Your task to perform on an android device: set default search engine in the chrome app Image 0: 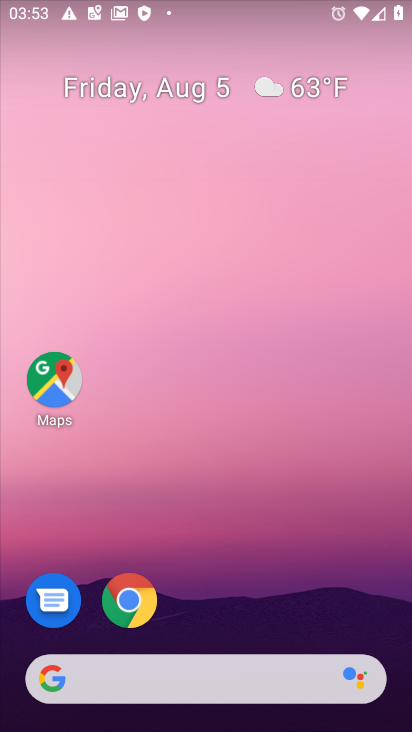
Step 0: click (129, 600)
Your task to perform on an android device: set default search engine in the chrome app Image 1: 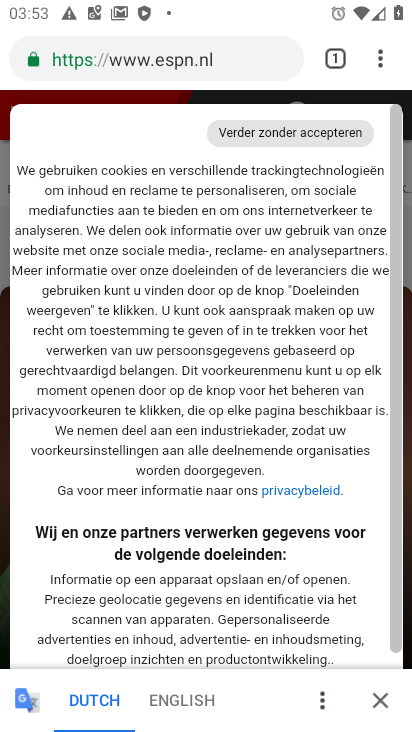
Step 1: click (380, 60)
Your task to perform on an android device: set default search engine in the chrome app Image 2: 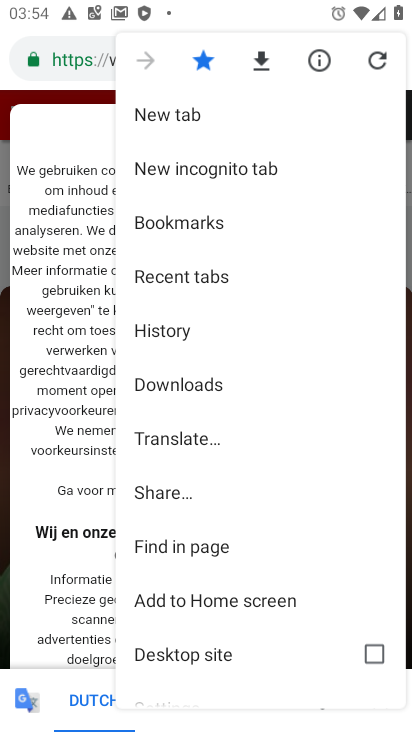
Step 2: drag from (180, 538) to (229, 449)
Your task to perform on an android device: set default search engine in the chrome app Image 3: 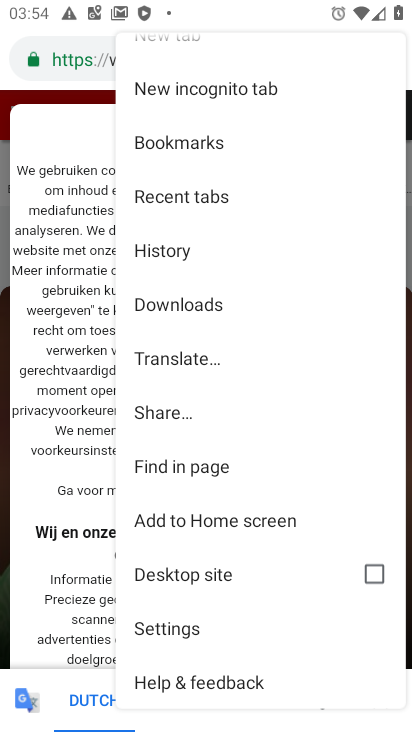
Step 3: click (187, 631)
Your task to perform on an android device: set default search engine in the chrome app Image 4: 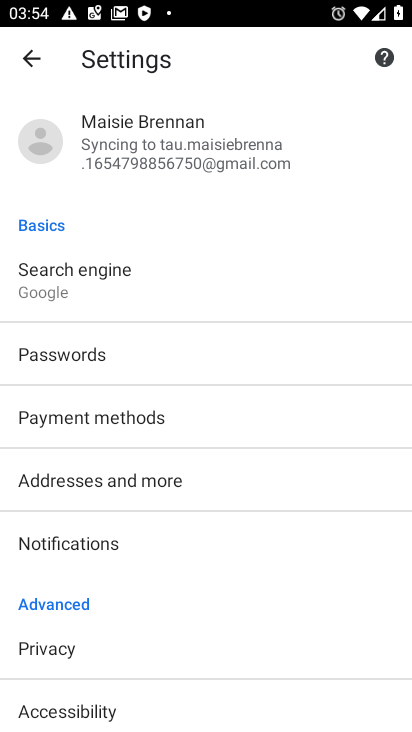
Step 4: click (92, 284)
Your task to perform on an android device: set default search engine in the chrome app Image 5: 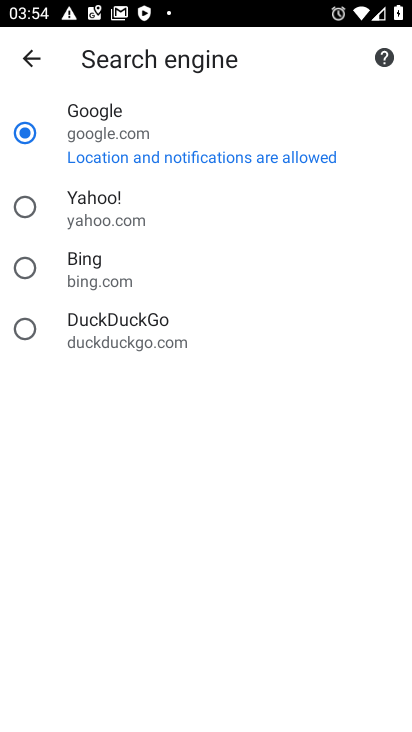
Step 5: click (28, 130)
Your task to perform on an android device: set default search engine in the chrome app Image 6: 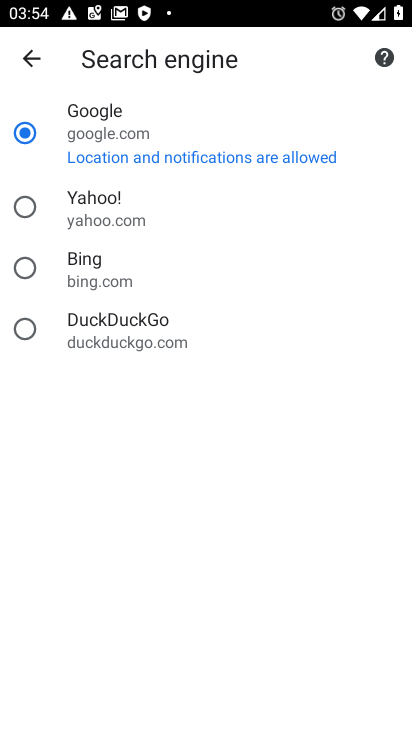
Step 6: task complete